Your task to perform on an android device: turn off notifications in google photos Image 0: 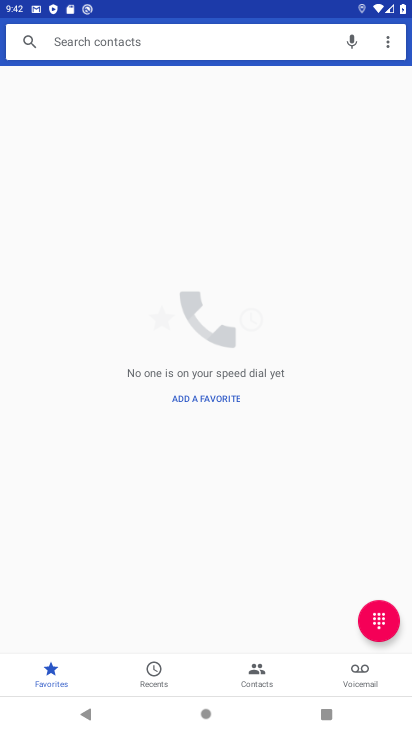
Step 0: drag from (282, 715) to (175, 311)
Your task to perform on an android device: turn off notifications in google photos Image 1: 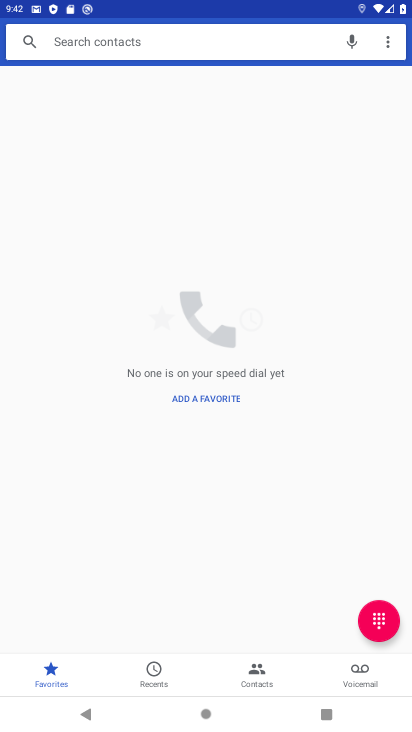
Step 1: press back button
Your task to perform on an android device: turn off notifications in google photos Image 2: 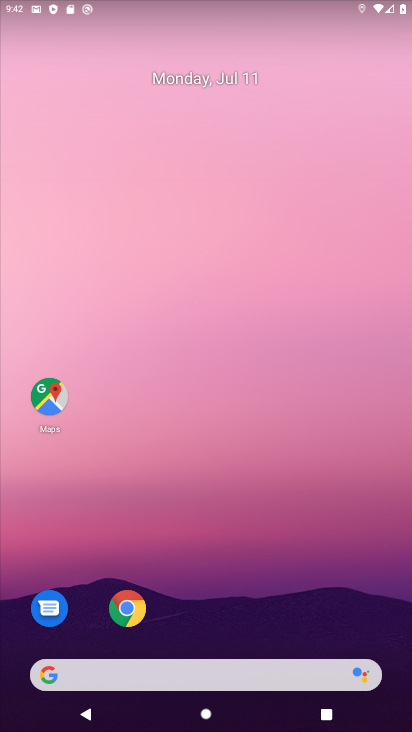
Step 2: drag from (306, 366) to (296, 274)
Your task to perform on an android device: turn off notifications in google photos Image 3: 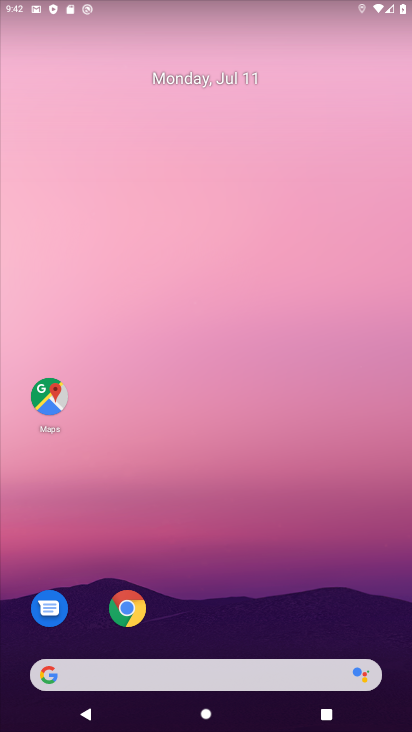
Step 3: drag from (274, 662) to (220, 64)
Your task to perform on an android device: turn off notifications in google photos Image 4: 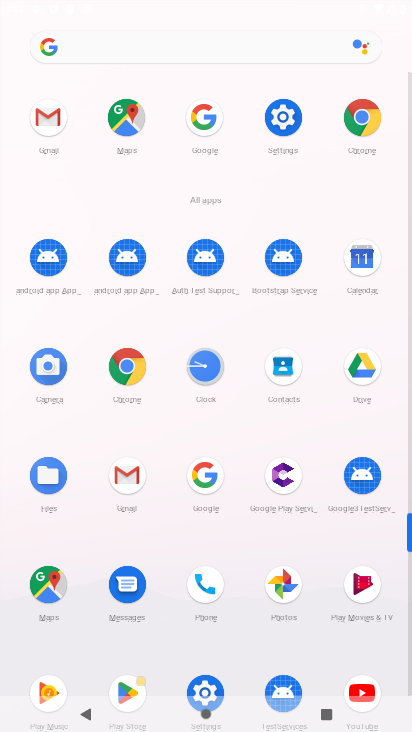
Step 4: click (287, 576)
Your task to perform on an android device: turn off notifications in google photos Image 5: 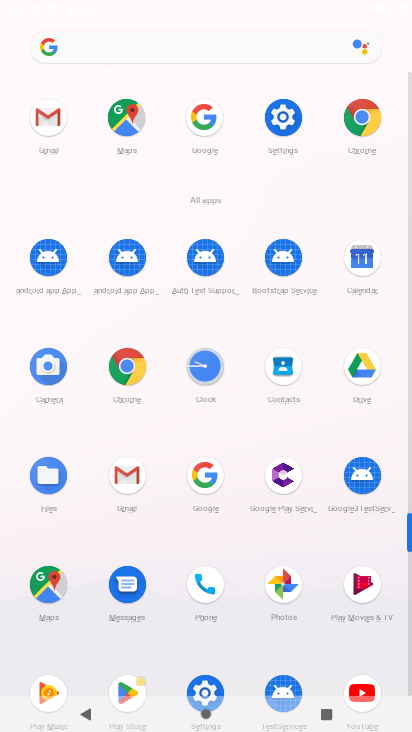
Step 5: click (283, 579)
Your task to perform on an android device: turn off notifications in google photos Image 6: 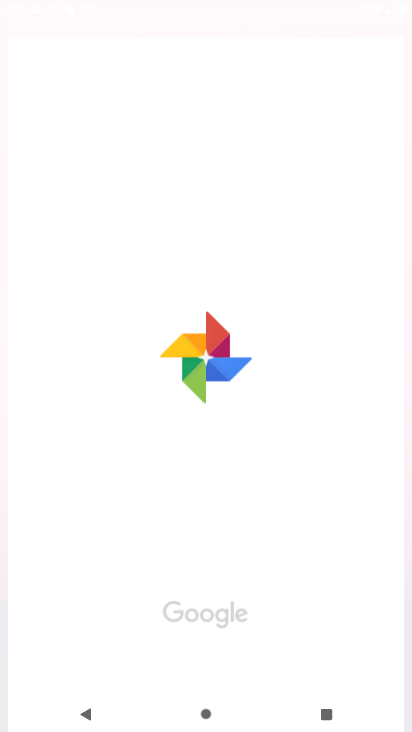
Step 6: click (284, 582)
Your task to perform on an android device: turn off notifications in google photos Image 7: 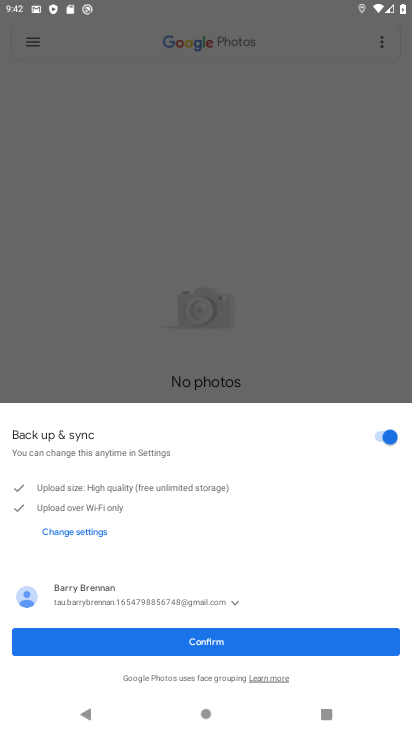
Step 7: click (251, 224)
Your task to perform on an android device: turn off notifications in google photos Image 8: 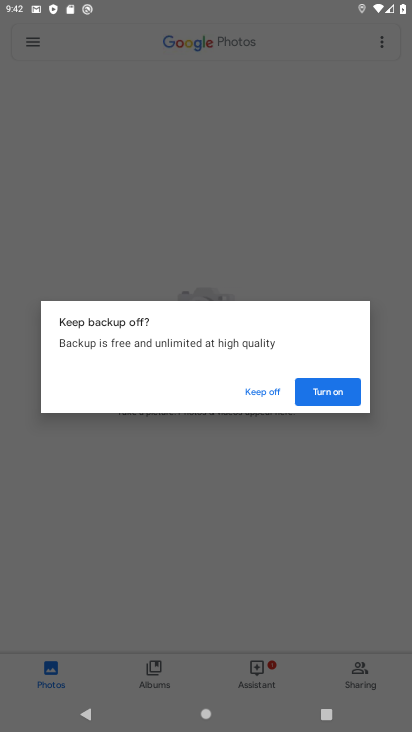
Step 8: click (232, 199)
Your task to perform on an android device: turn off notifications in google photos Image 9: 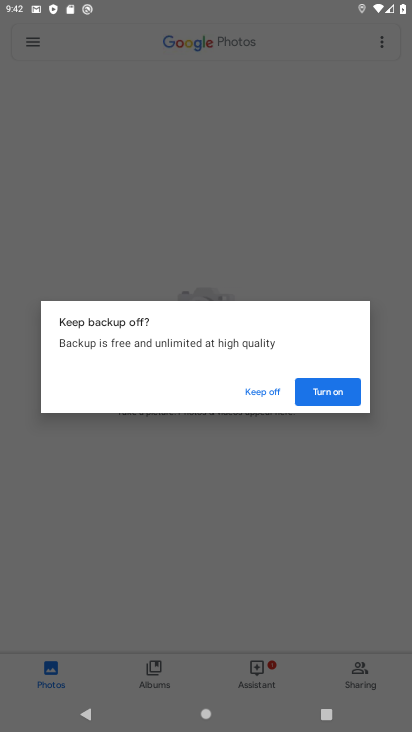
Step 9: click (232, 199)
Your task to perform on an android device: turn off notifications in google photos Image 10: 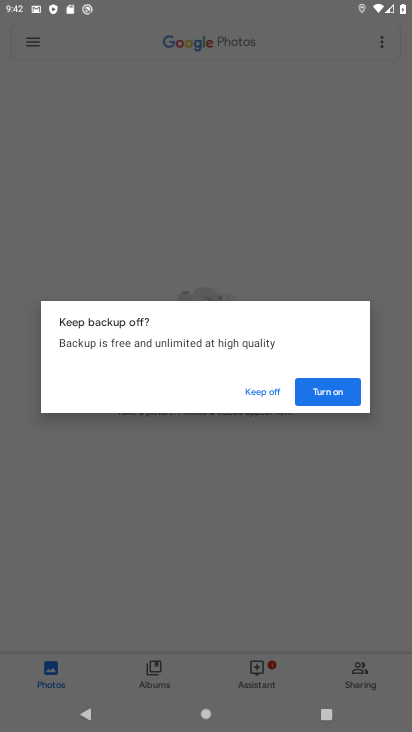
Step 10: click (262, 396)
Your task to perform on an android device: turn off notifications in google photos Image 11: 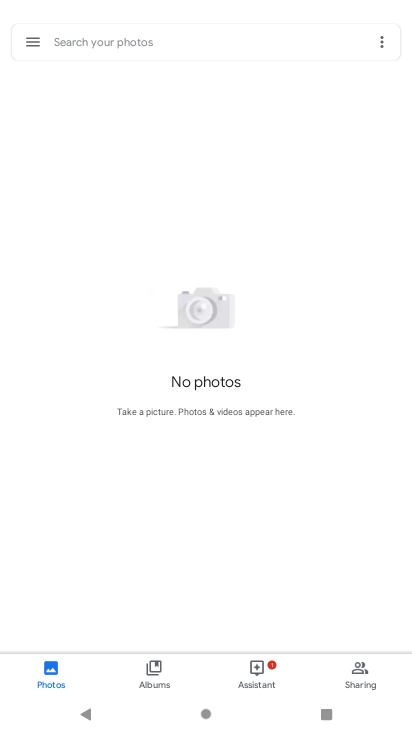
Step 11: click (30, 33)
Your task to perform on an android device: turn off notifications in google photos Image 12: 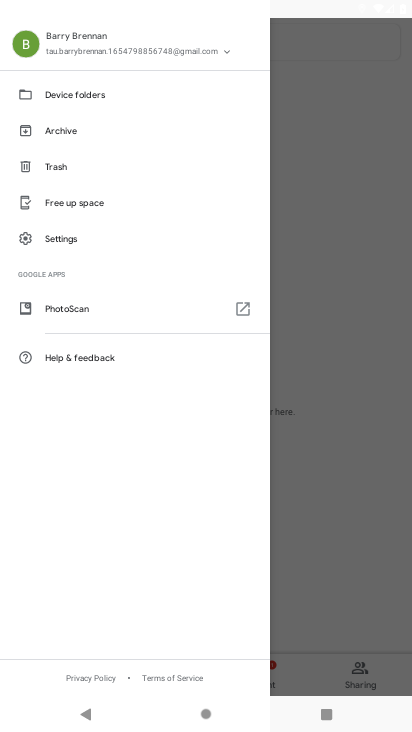
Step 12: click (53, 229)
Your task to perform on an android device: turn off notifications in google photos Image 13: 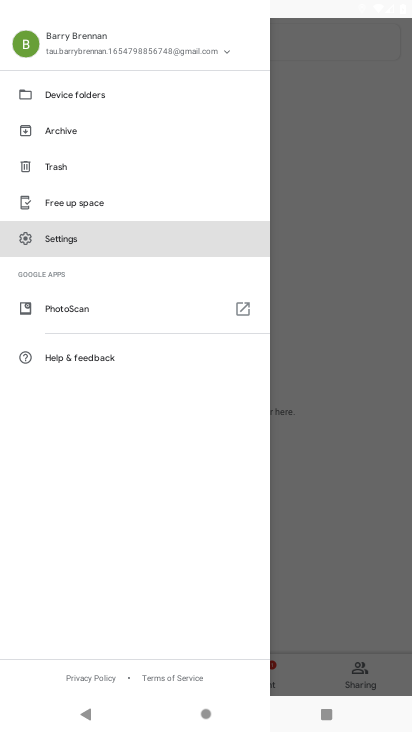
Step 13: click (54, 228)
Your task to perform on an android device: turn off notifications in google photos Image 14: 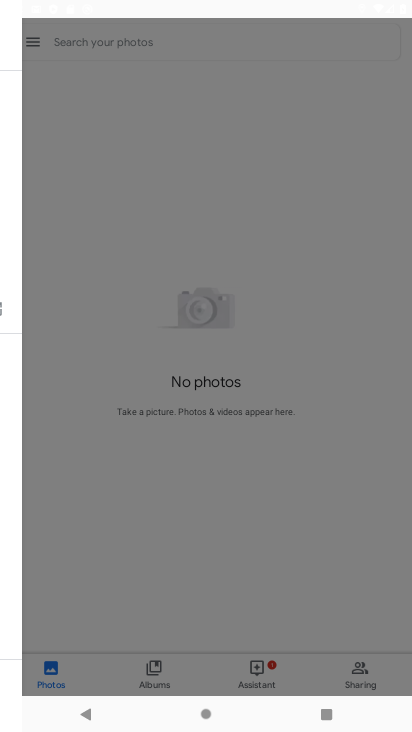
Step 14: click (57, 228)
Your task to perform on an android device: turn off notifications in google photos Image 15: 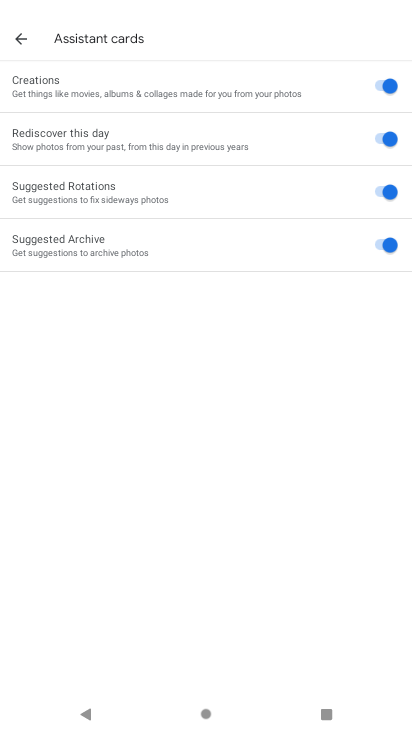
Step 15: click (19, 38)
Your task to perform on an android device: turn off notifications in google photos Image 16: 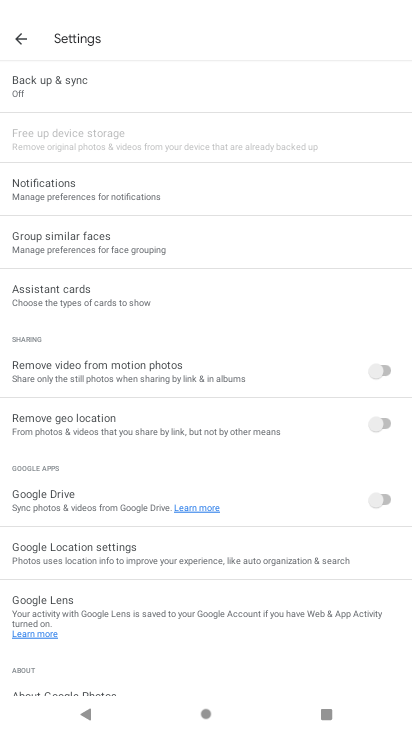
Step 16: click (57, 187)
Your task to perform on an android device: turn off notifications in google photos Image 17: 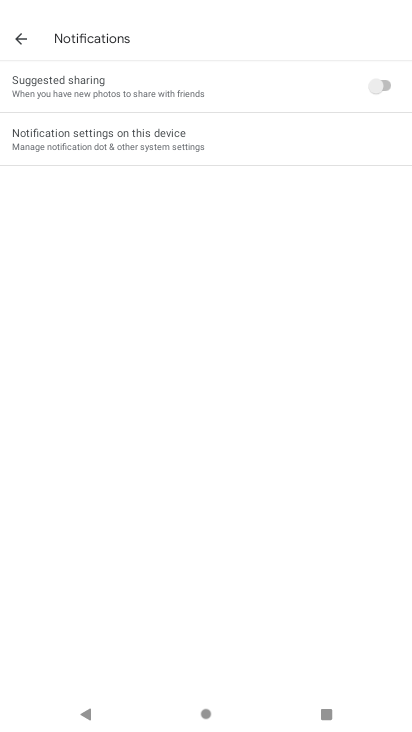
Step 17: click (21, 43)
Your task to perform on an android device: turn off notifications in google photos Image 18: 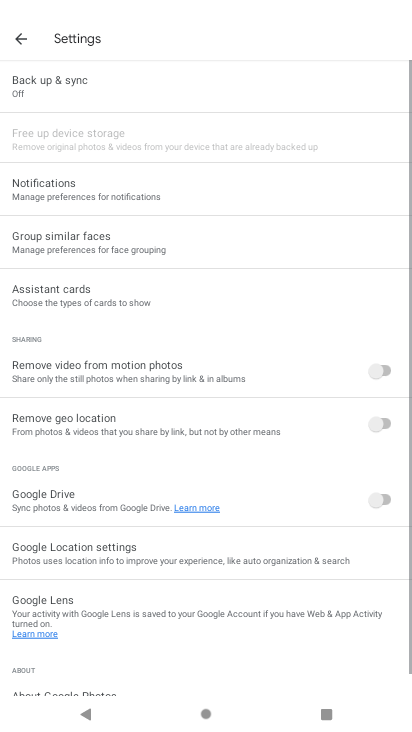
Step 18: click (21, 44)
Your task to perform on an android device: turn off notifications in google photos Image 19: 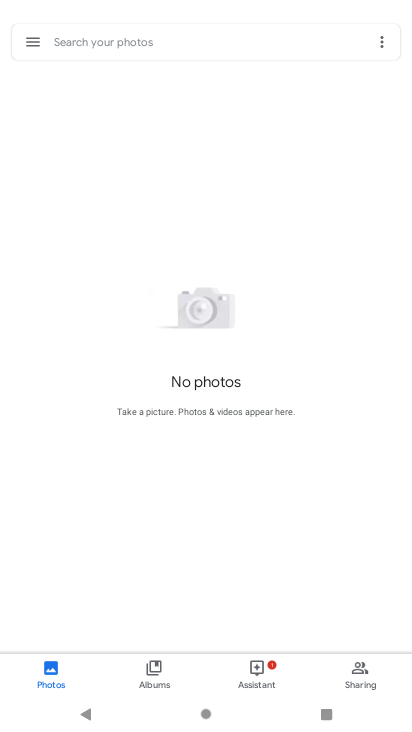
Step 19: click (47, 187)
Your task to perform on an android device: turn off notifications in google photos Image 20: 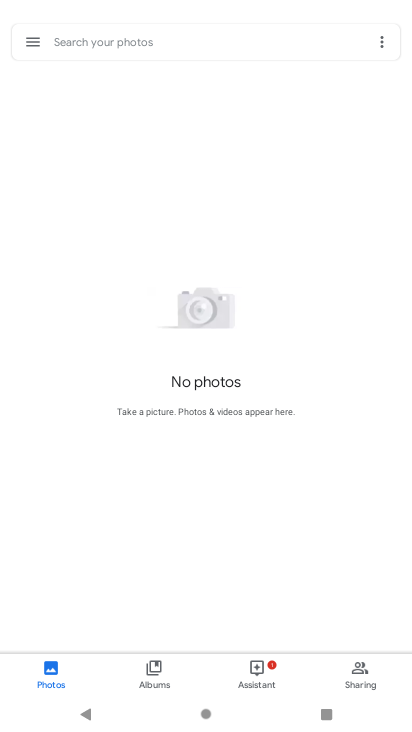
Step 20: click (40, 34)
Your task to perform on an android device: turn off notifications in google photos Image 21: 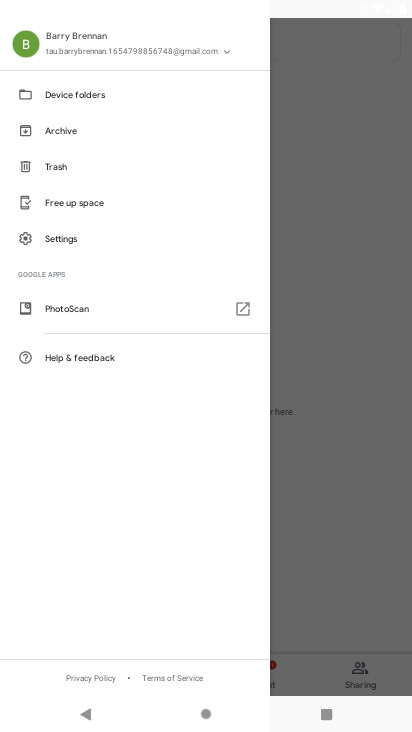
Step 21: click (63, 244)
Your task to perform on an android device: turn off notifications in google photos Image 22: 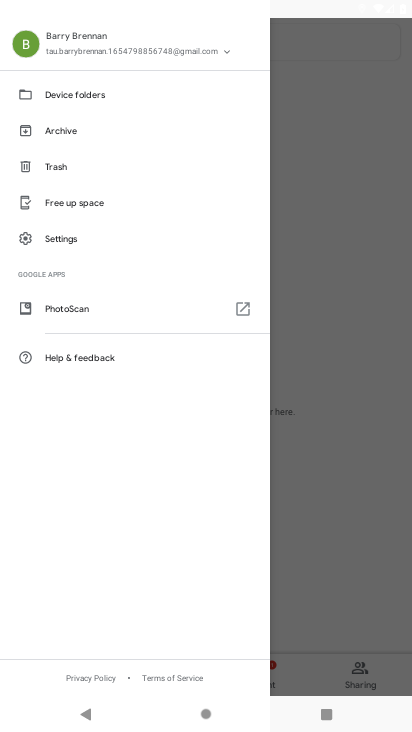
Step 22: click (63, 248)
Your task to perform on an android device: turn off notifications in google photos Image 23: 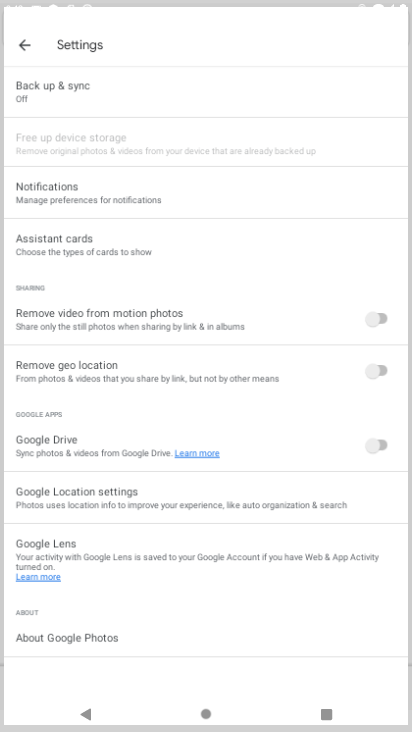
Step 23: click (65, 249)
Your task to perform on an android device: turn off notifications in google photos Image 24: 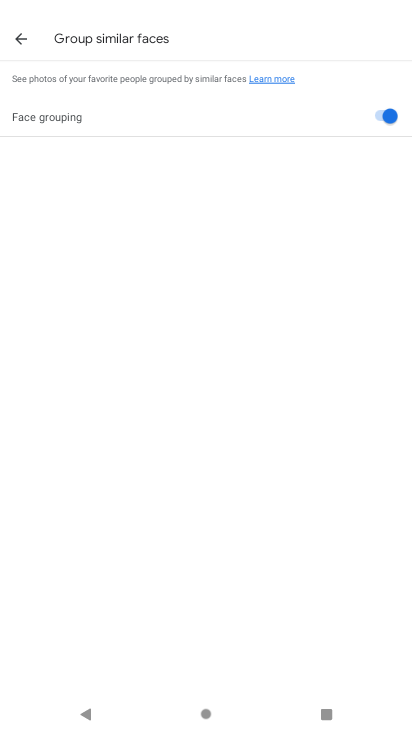
Step 24: click (21, 36)
Your task to perform on an android device: turn off notifications in google photos Image 25: 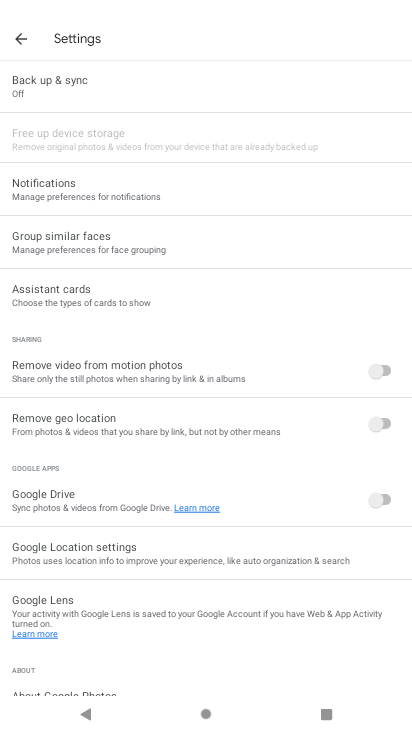
Step 25: click (56, 193)
Your task to perform on an android device: turn off notifications in google photos Image 26: 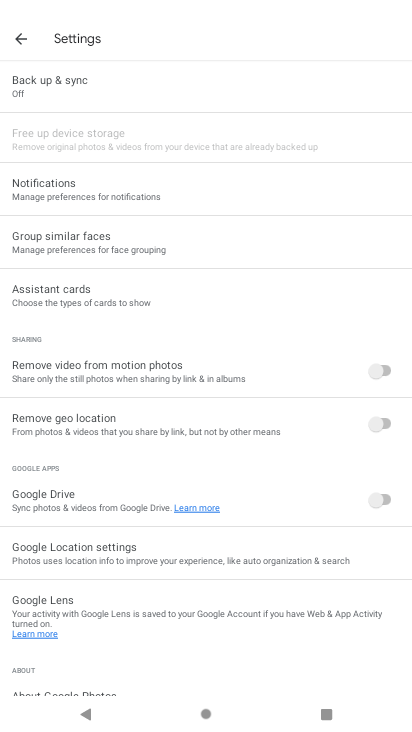
Step 26: click (56, 192)
Your task to perform on an android device: turn off notifications in google photos Image 27: 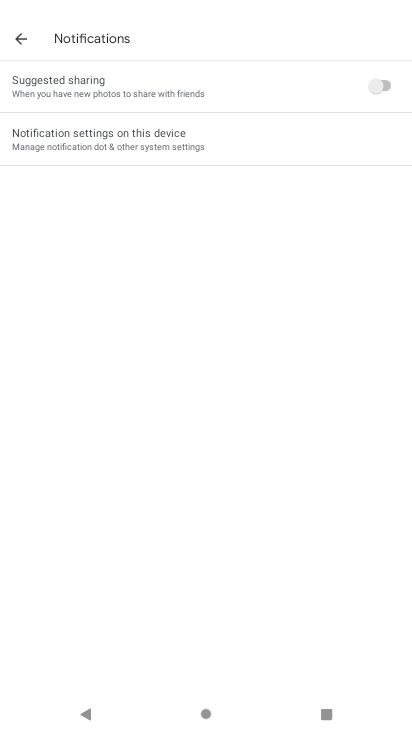
Step 27: click (57, 191)
Your task to perform on an android device: turn off notifications in google photos Image 28: 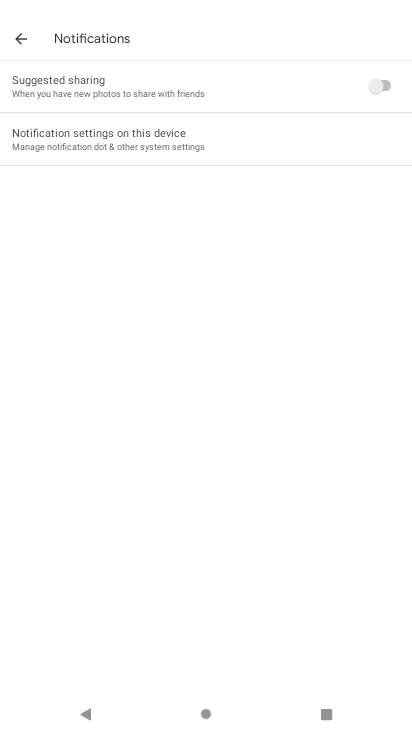
Step 28: task complete